Your task to perform on an android device: turn notification dots on Image 0: 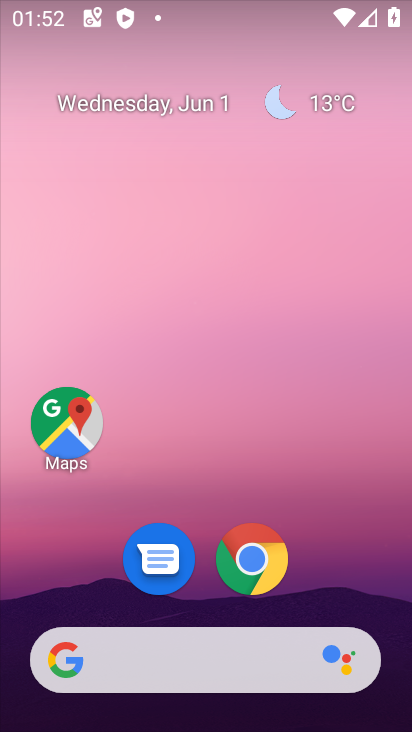
Step 0: drag from (393, 689) to (344, 193)
Your task to perform on an android device: turn notification dots on Image 1: 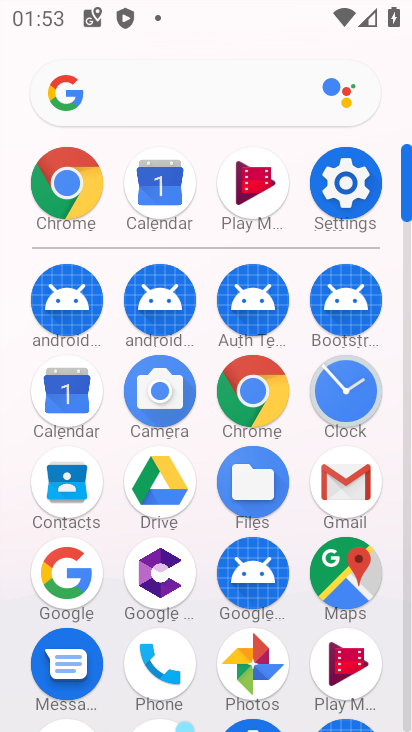
Step 1: click (328, 181)
Your task to perform on an android device: turn notification dots on Image 2: 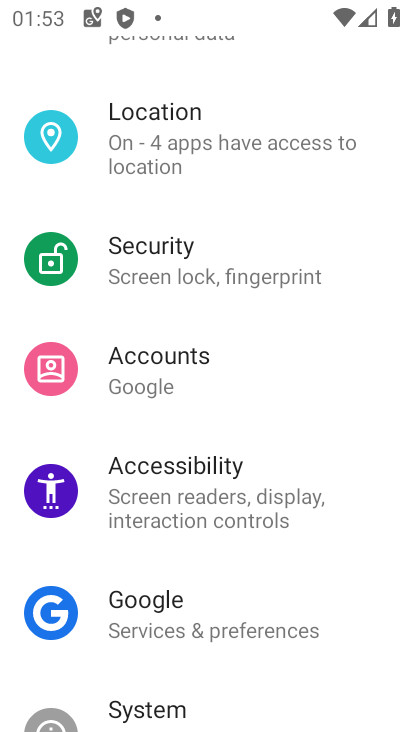
Step 2: drag from (229, 120) to (284, 498)
Your task to perform on an android device: turn notification dots on Image 3: 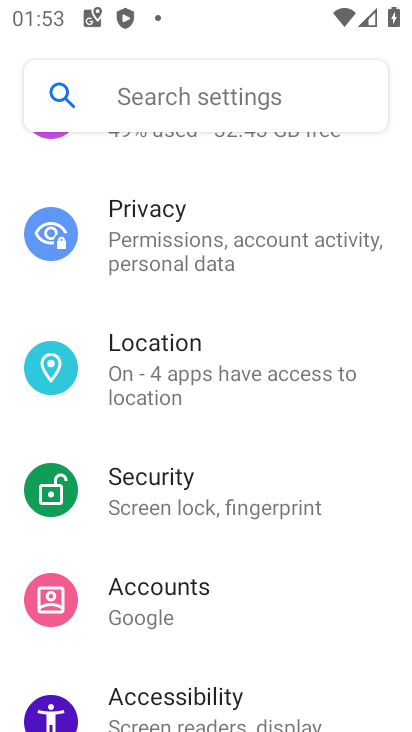
Step 3: drag from (235, 190) to (256, 591)
Your task to perform on an android device: turn notification dots on Image 4: 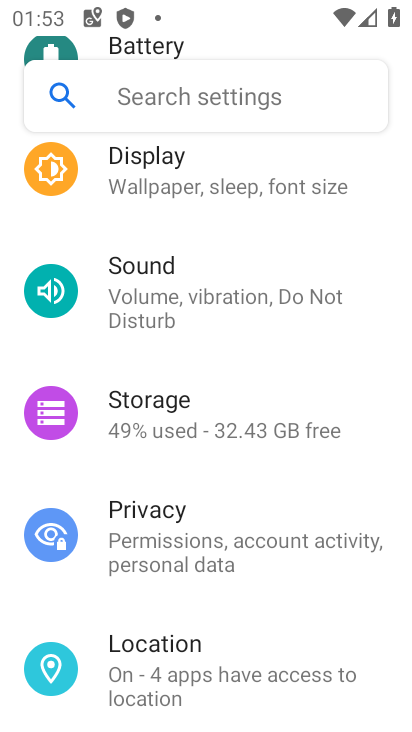
Step 4: drag from (255, 249) to (284, 620)
Your task to perform on an android device: turn notification dots on Image 5: 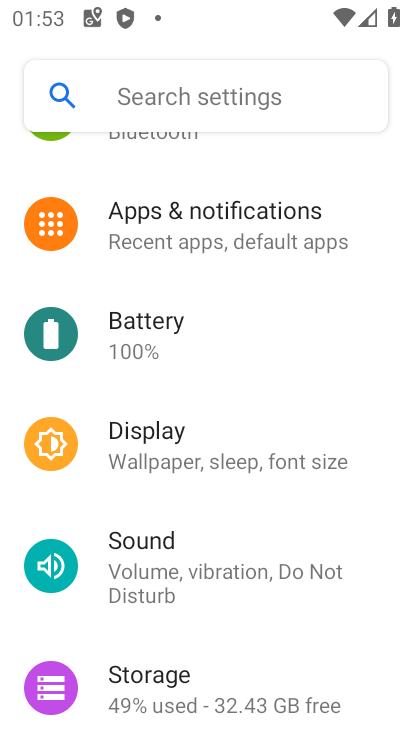
Step 5: click (261, 230)
Your task to perform on an android device: turn notification dots on Image 6: 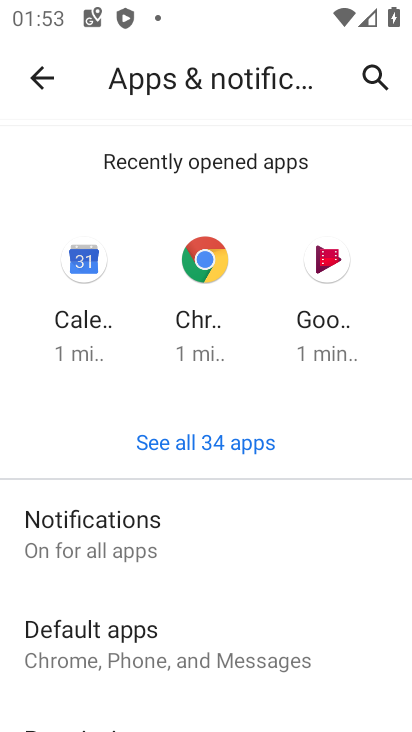
Step 6: click (102, 520)
Your task to perform on an android device: turn notification dots on Image 7: 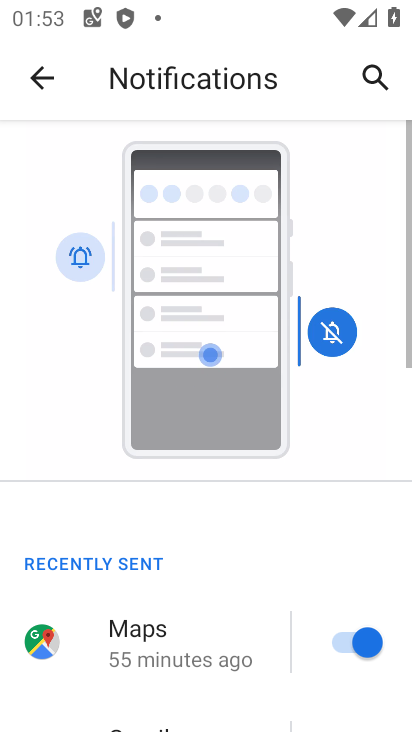
Step 7: drag from (327, 690) to (251, 290)
Your task to perform on an android device: turn notification dots on Image 8: 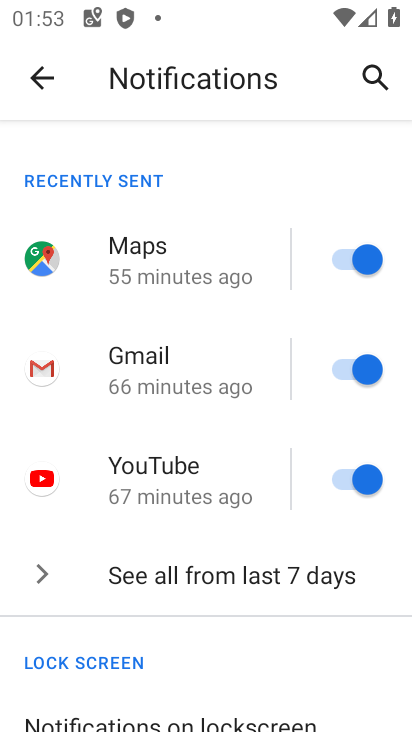
Step 8: drag from (262, 687) to (235, 356)
Your task to perform on an android device: turn notification dots on Image 9: 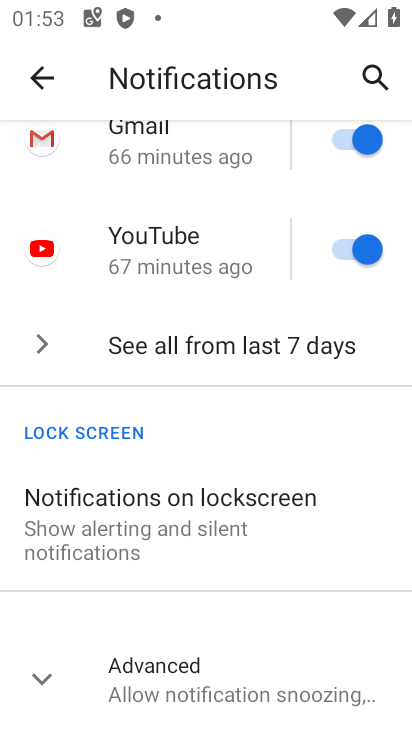
Step 9: click (145, 678)
Your task to perform on an android device: turn notification dots on Image 10: 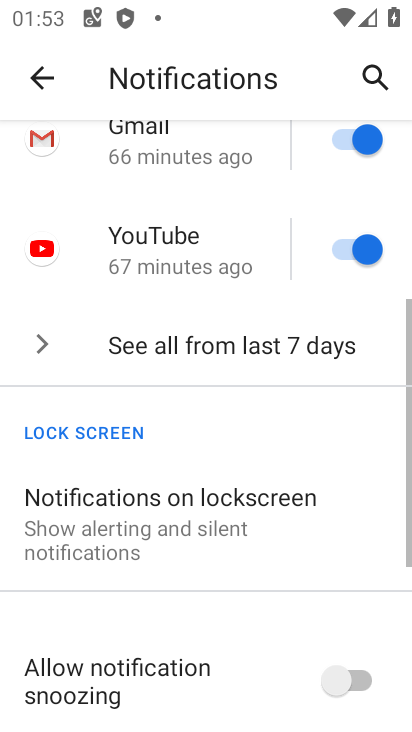
Step 10: task complete